Your task to perform on an android device: change notification settings in the gmail app Image 0: 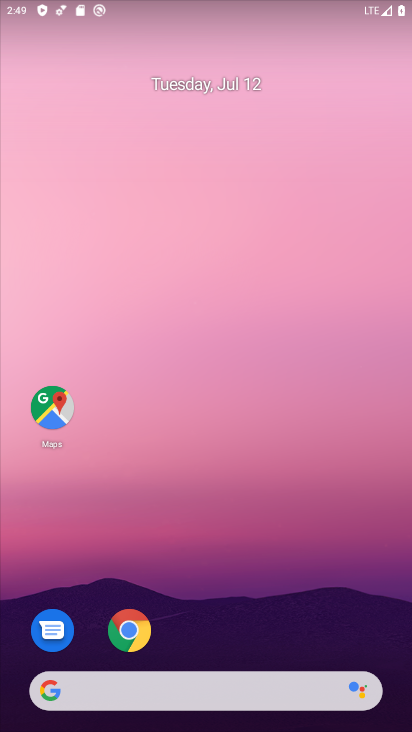
Step 0: drag from (206, 607) to (147, 0)
Your task to perform on an android device: change notification settings in the gmail app Image 1: 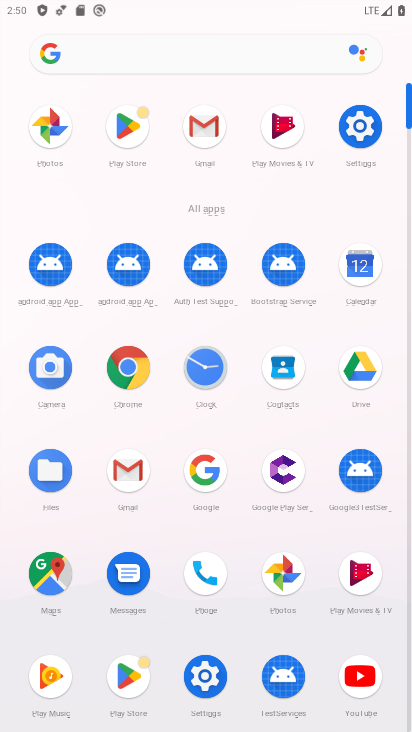
Step 1: click (130, 482)
Your task to perform on an android device: change notification settings in the gmail app Image 2: 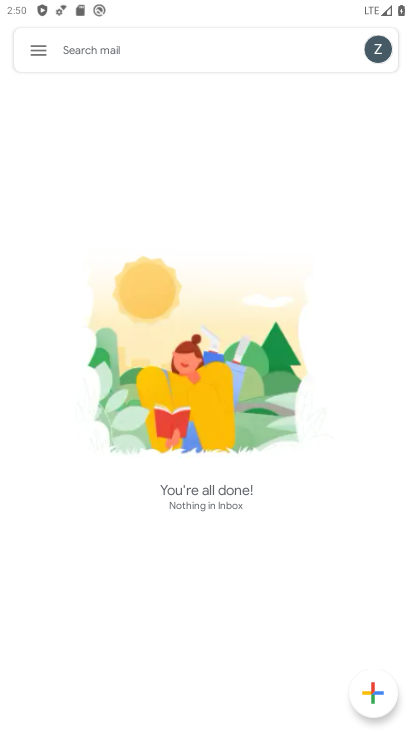
Step 2: click (43, 49)
Your task to perform on an android device: change notification settings in the gmail app Image 3: 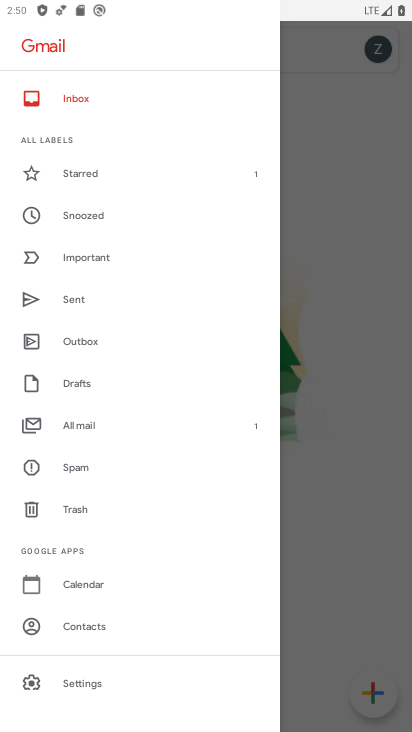
Step 3: click (85, 678)
Your task to perform on an android device: change notification settings in the gmail app Image 4: 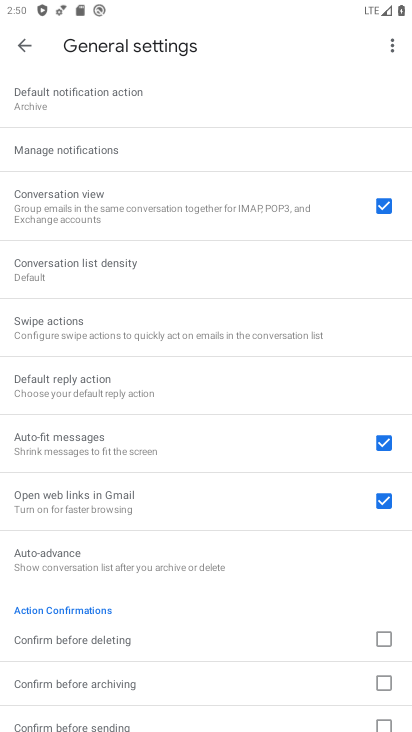
Step 4: click (77, 156)
Your task to perform on an android device: change notification settings in the gmail app Image 5: 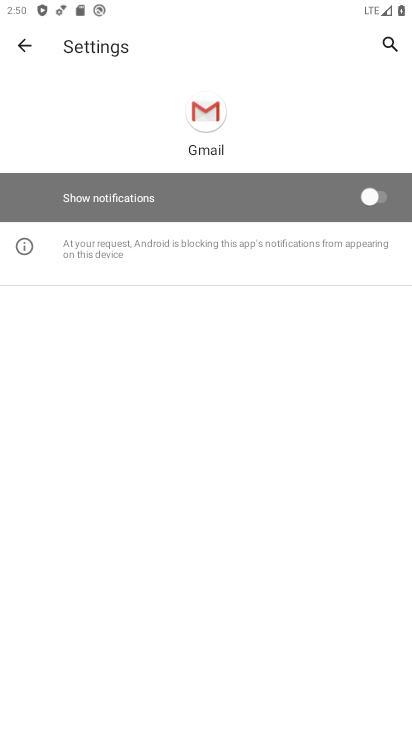
Step 5: click (345, 205)
Your task to perform on an android device: change notification settings in the gmail app Image 6: 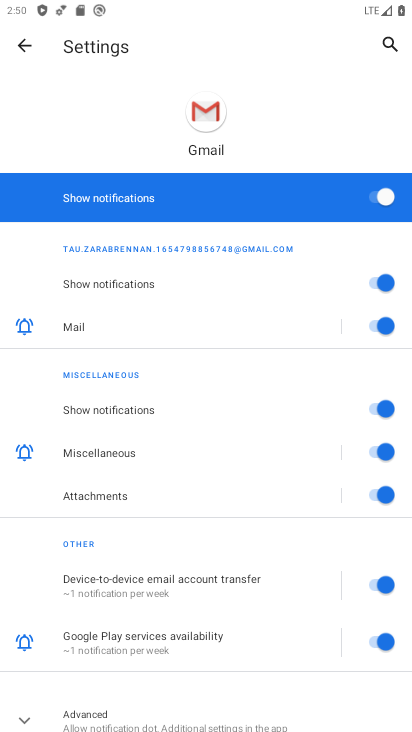
Step 6: task complete